Your task to perform on an android device: open app "Google Chat" (install if not already installed) Image 0: 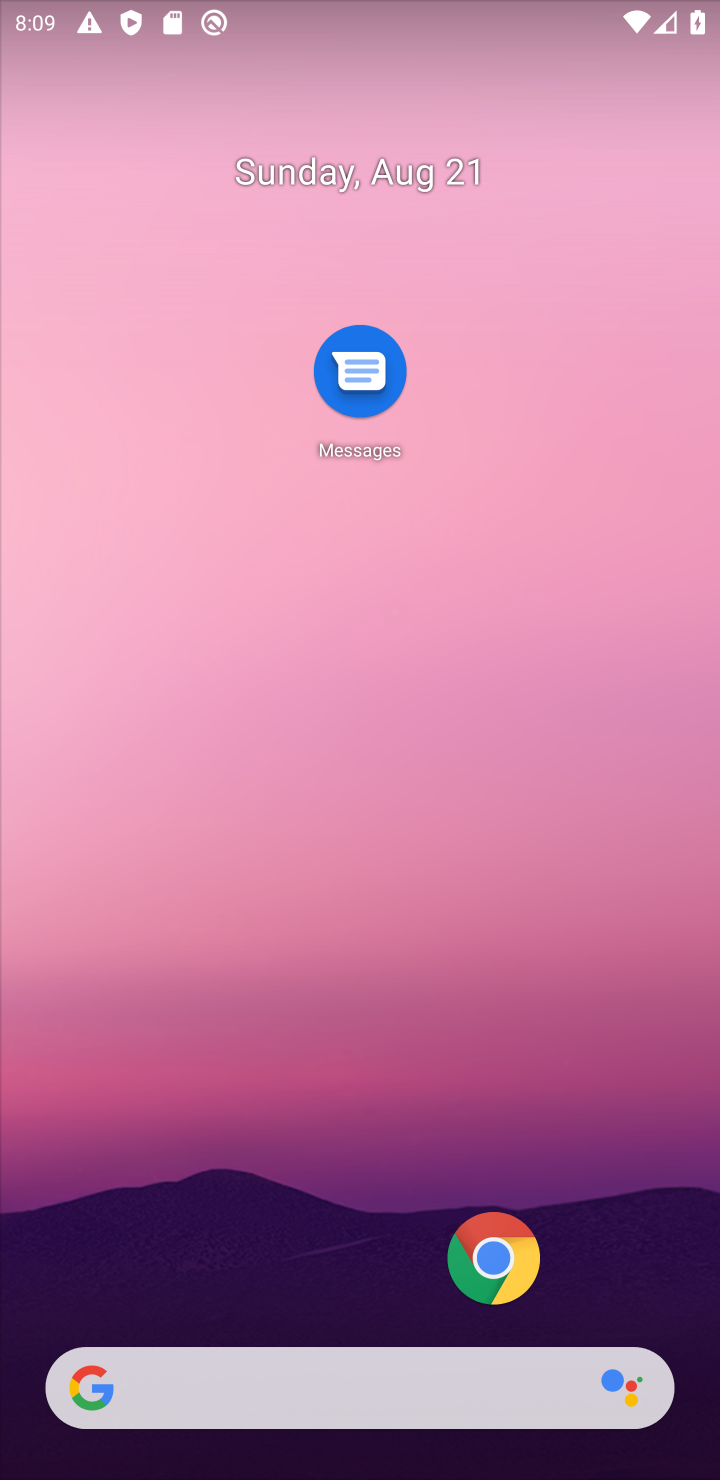
Step 0: drag from (343, 1320) to (201, 275)
Your task to perform on an android device: open app "Google Chat" (install if not already installed) Image 1: 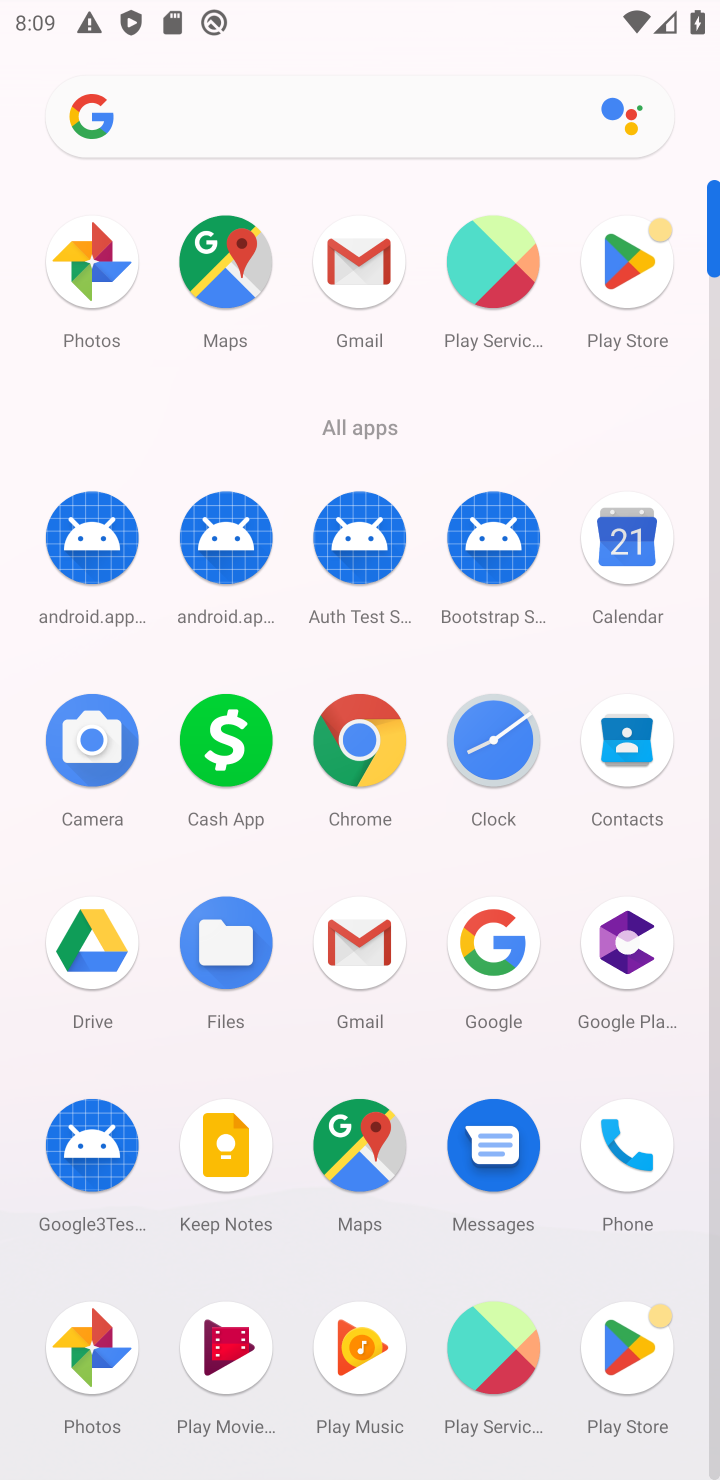
Step 1: click (648, 308)
Your task to perform on an android device: open app "Google Chat" (install if not already installed) Image 2: 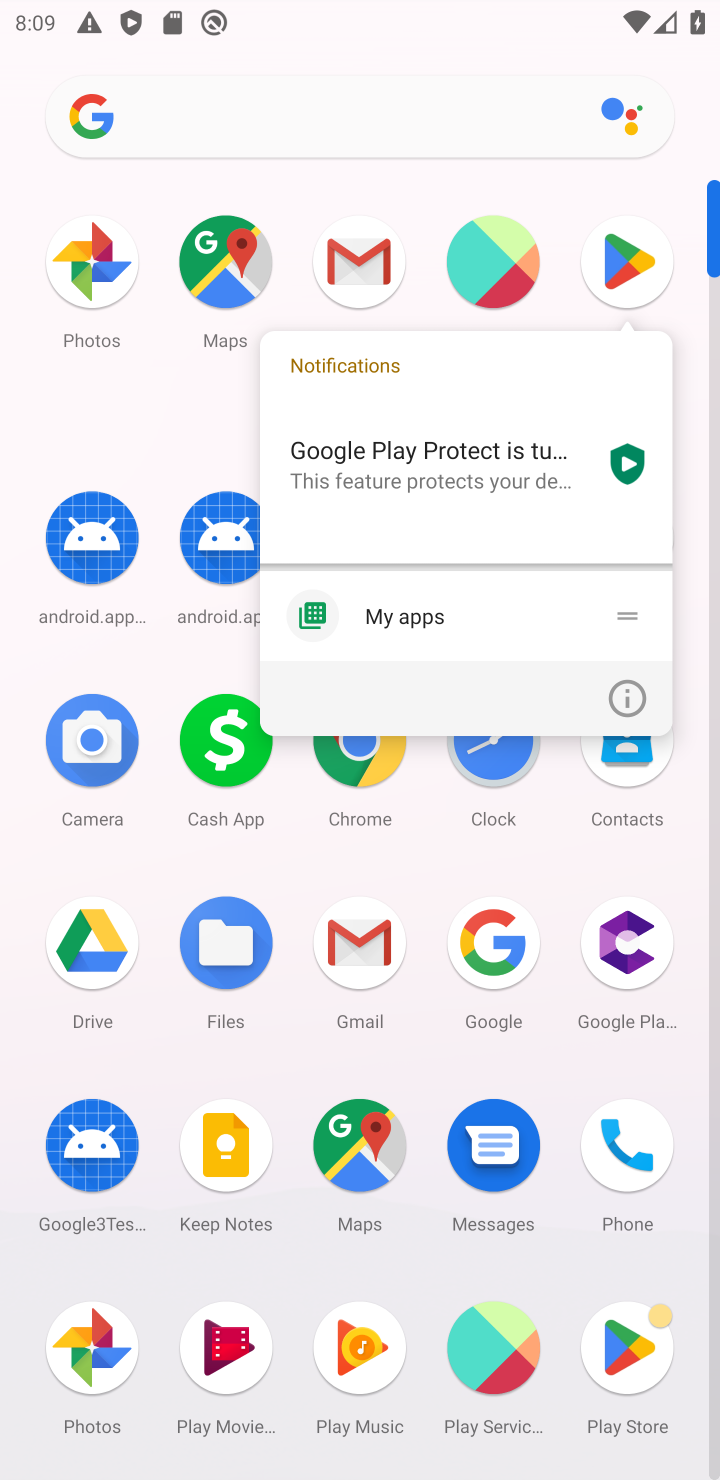
Step 2: click (628, 264)
Your task to perform on an android device: open app "Google Chat" (install if not already installed) Image 3: 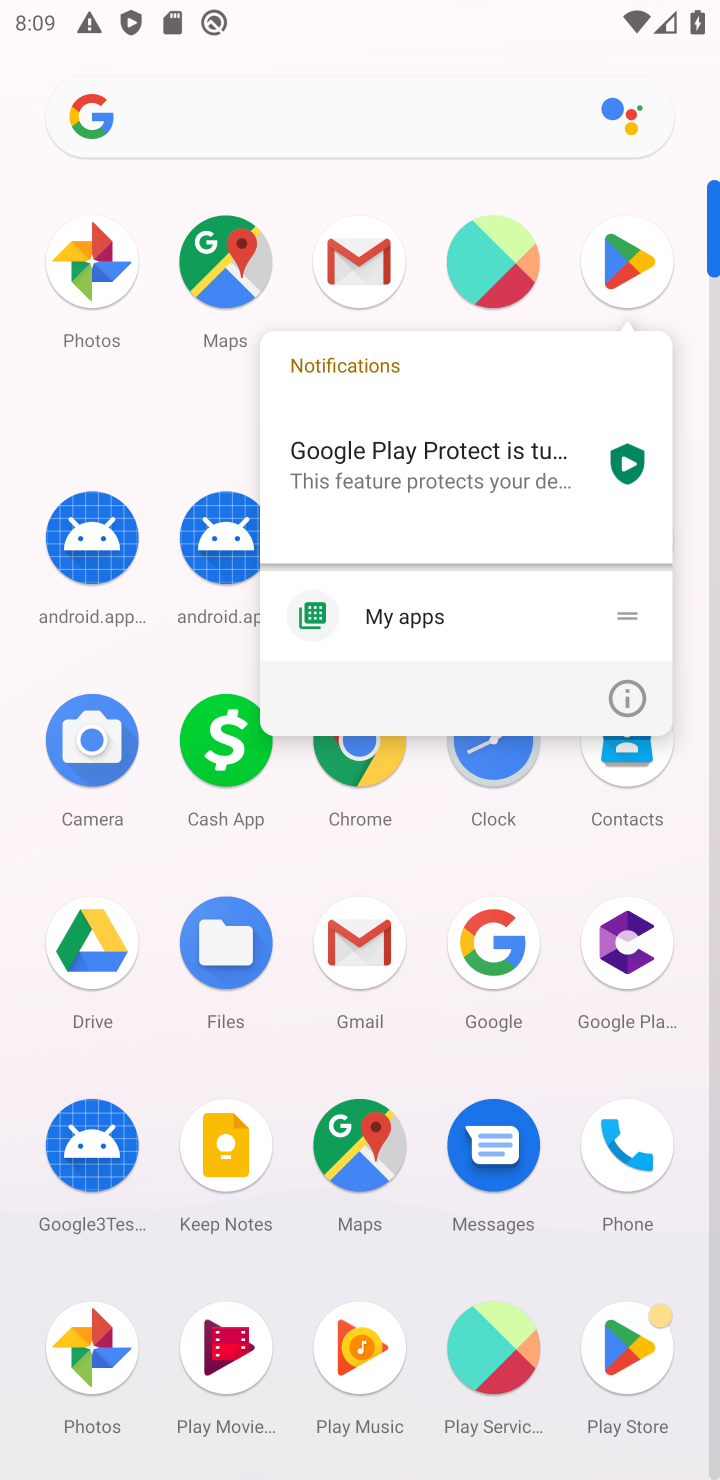
Step 3: click (628, 258)
Your task to perform on an android device: open app "Google Chat" (install if not already installed) Image 4: 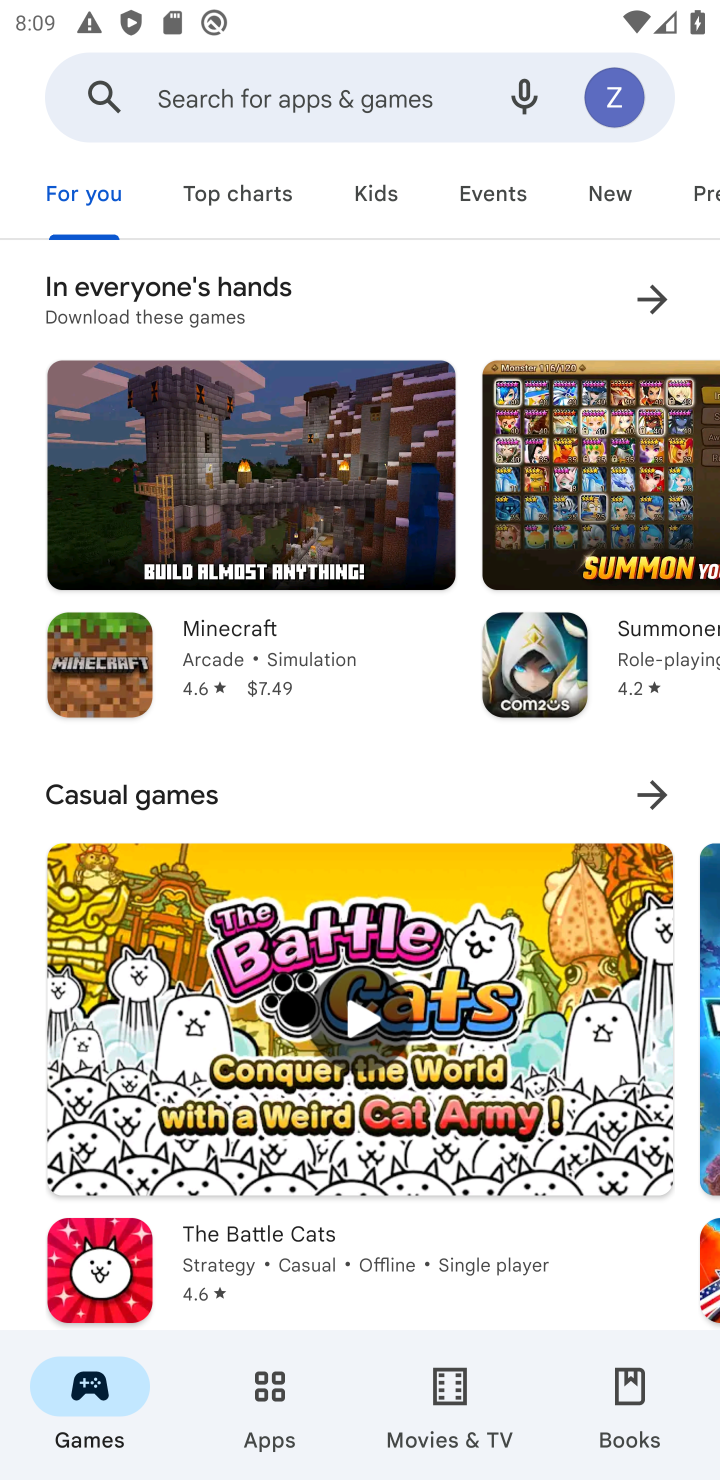
Step 4: click (310, 101)
Your task to perform on an android device: open app "Google Chat" (install if not already installed) Image 5: 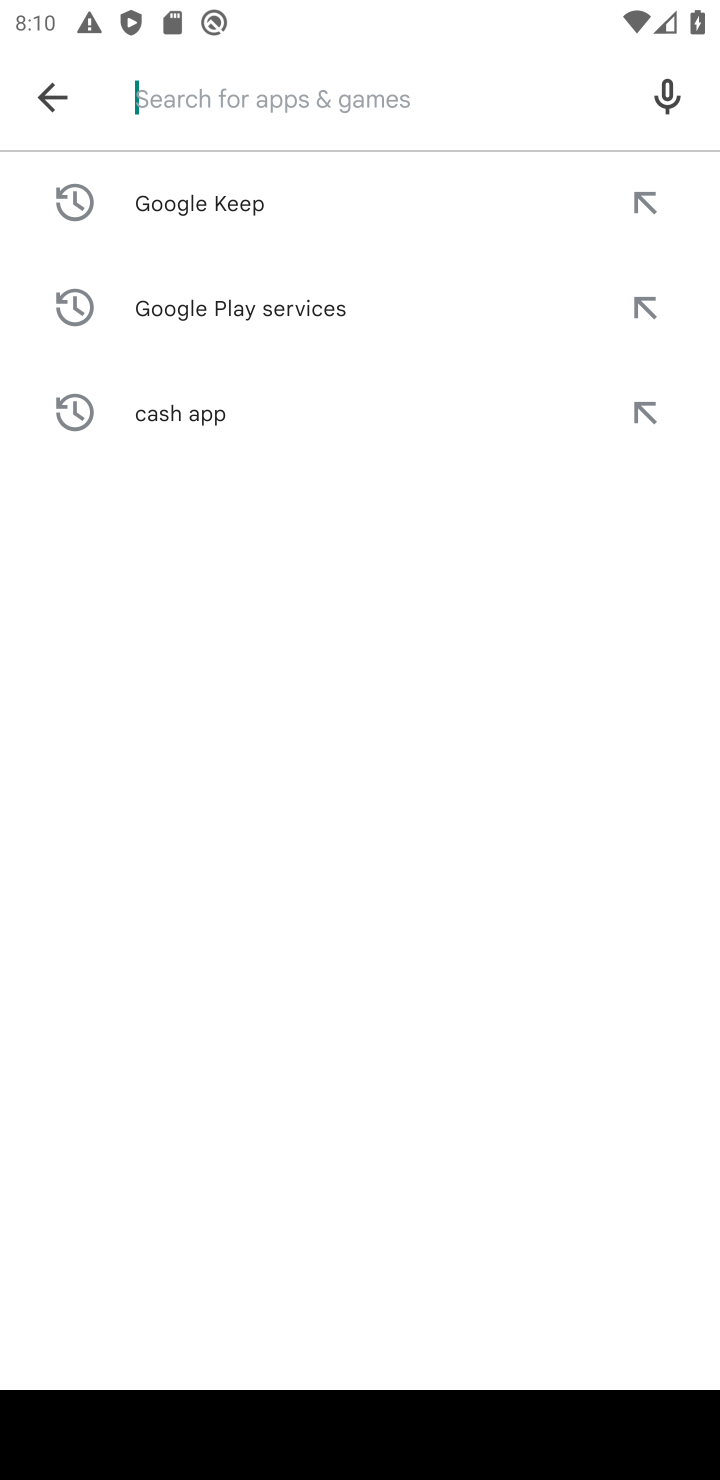
Step 5: type "Google Chat"
Your task to perform on an android device: open app "Google Chat" (install if not already installed) Image 6: 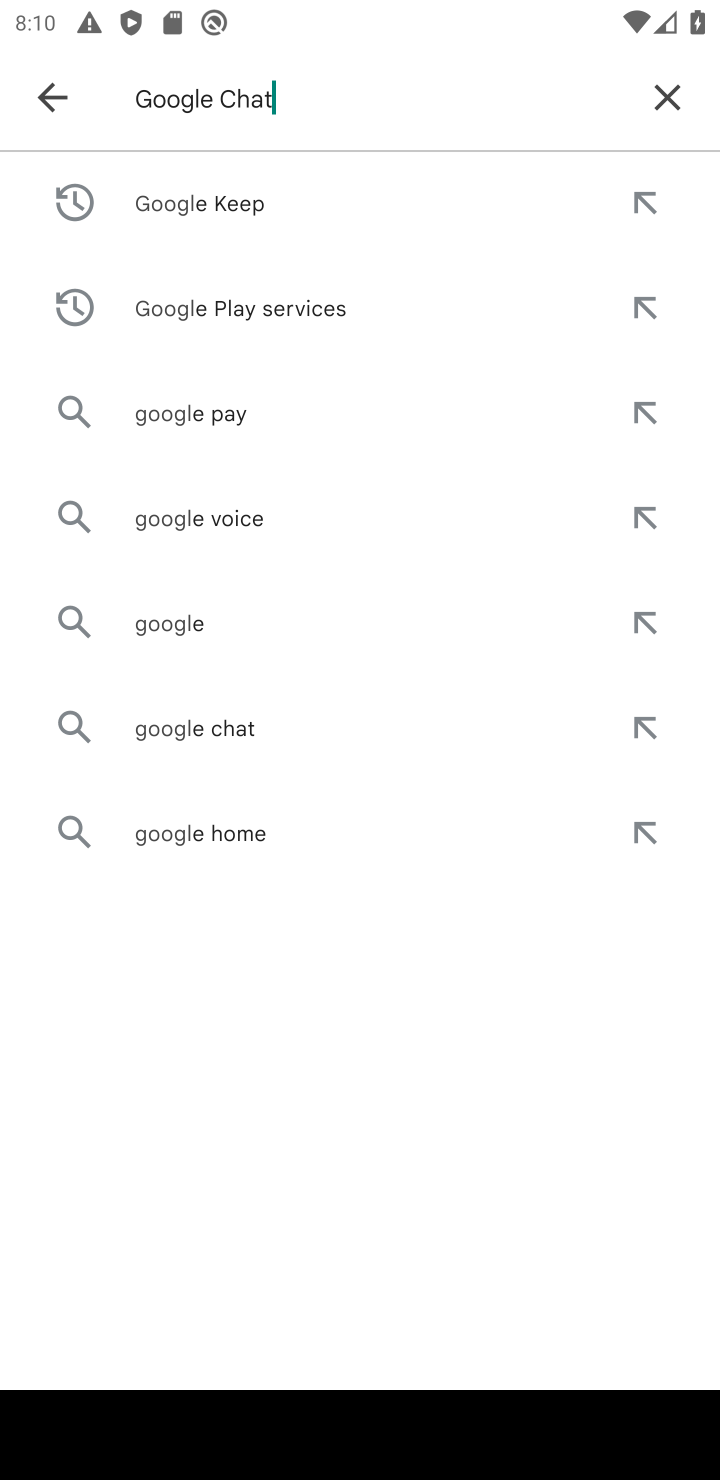
Step 6: press enter
Your task to perform on an android device: open app "Google Chat" (install if not already installed) Image 7: 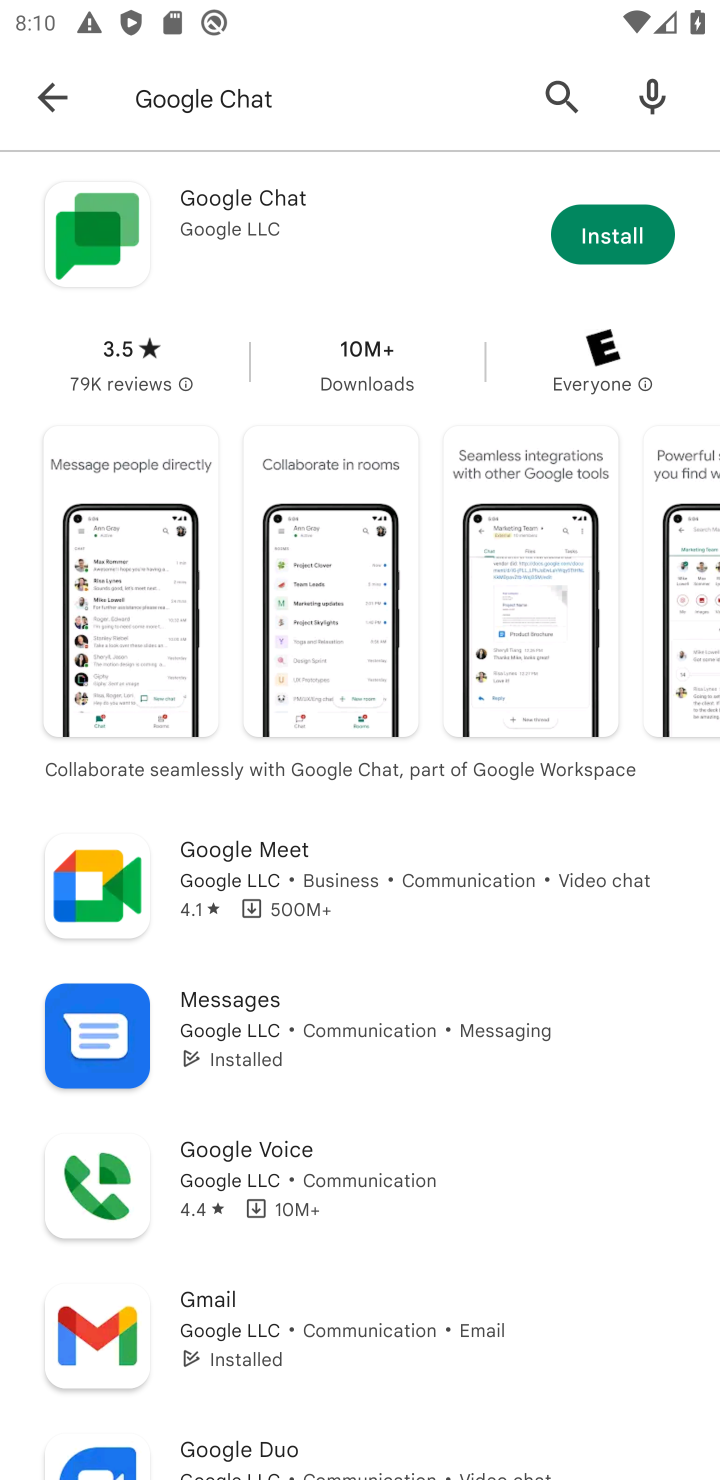
Step 7: click (617, 250)
Your task to perform on an android device: open app "Google Chat" (install if not already installed) Image 8: 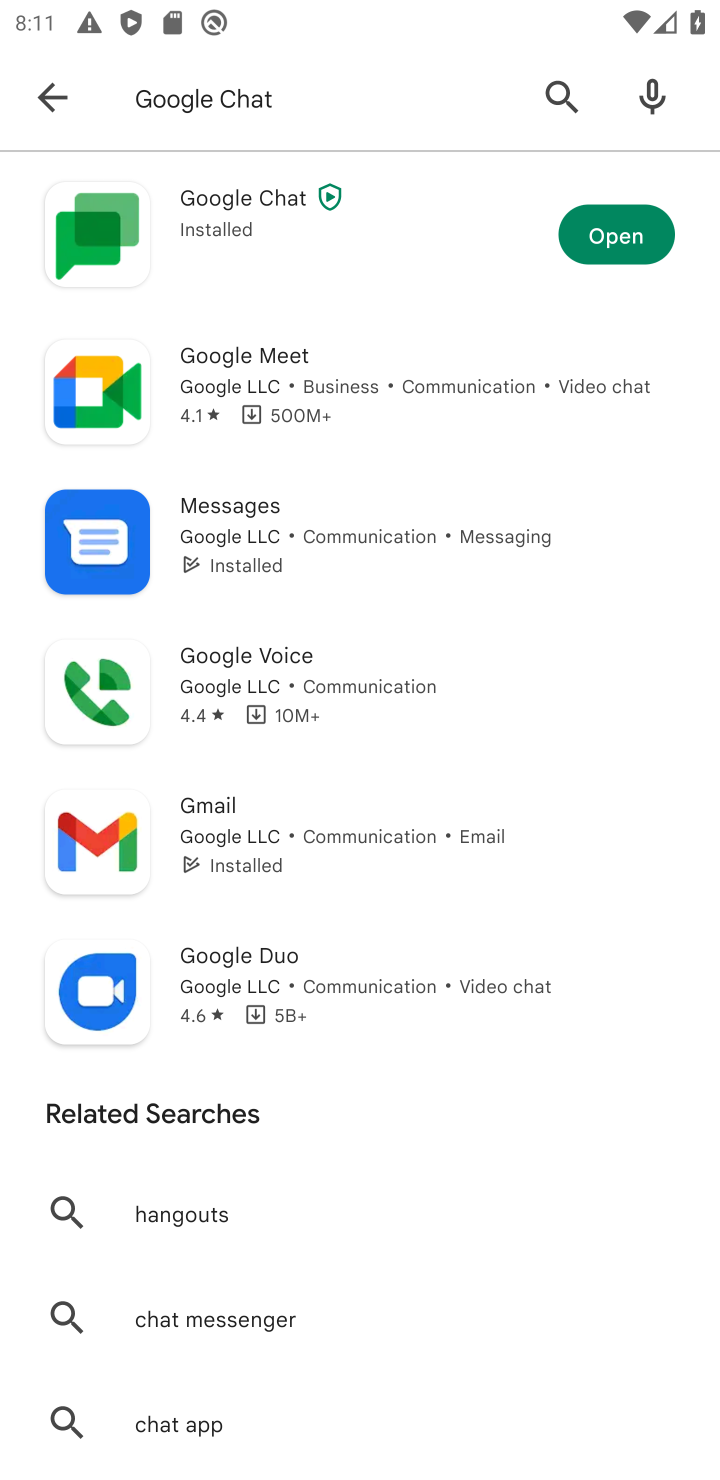
Step 8: click (606, 233)
Your task to perform on an android device: open app "Google Chat" (install if not already installed) Image 9: 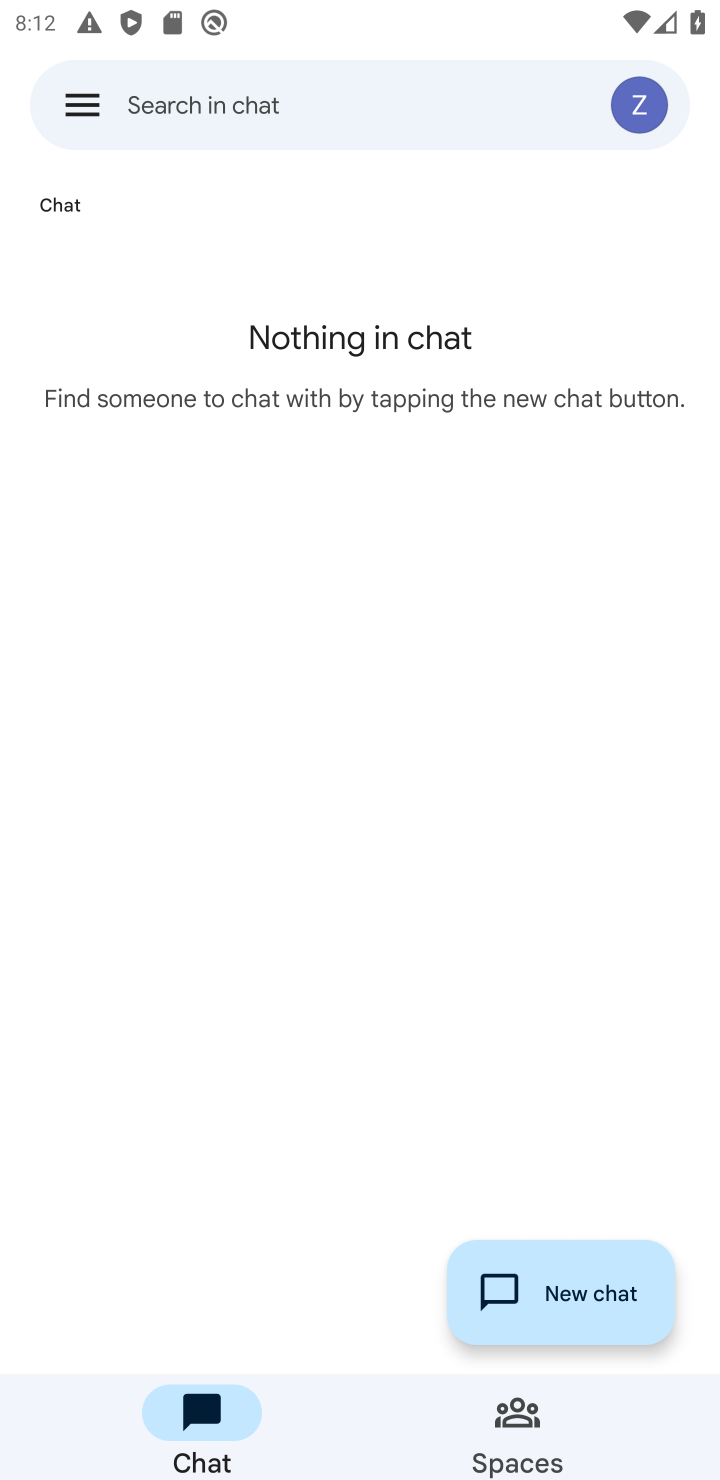
Step 9: task complete